Your task to perform on an android device: search for starred emails in the gmail app Image 0: 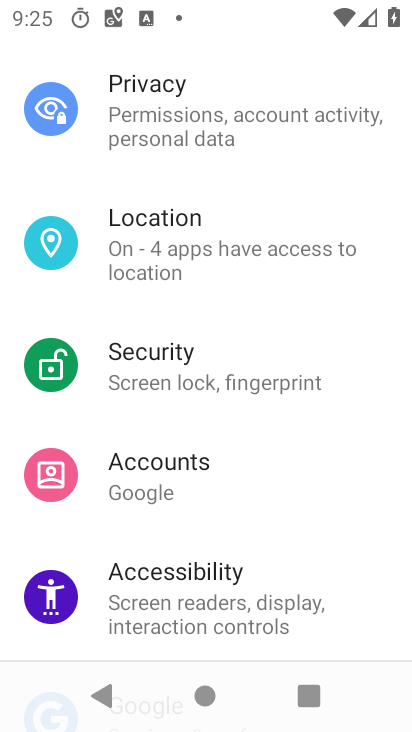
Step 0: press home button
Your task to perform on an android device: search for starred emails in the gmail app Image 1: 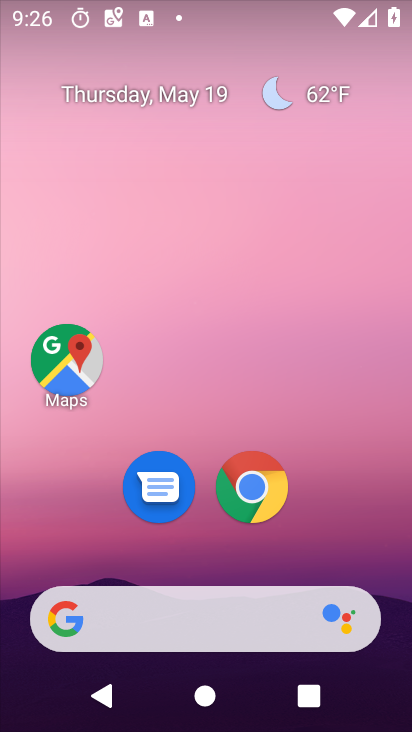
Step 1: drag from (313, 561) to (285, 102)
Your task to perform on an android device: search for starred emails in the gmail app Image 2: 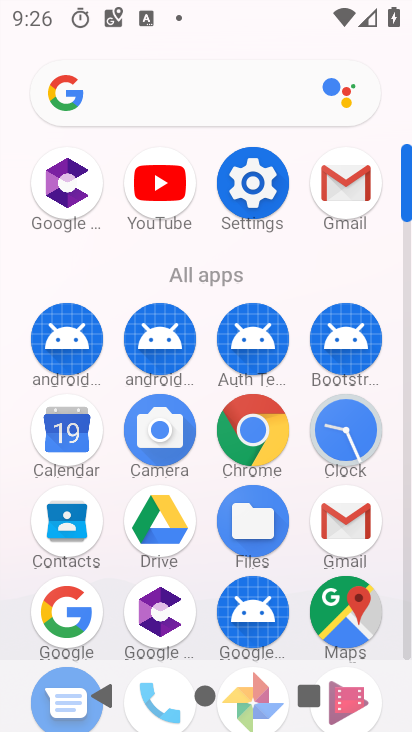
Step 2: click (338, 173)
Your task to perform on an android device: search for starred emails in the gmail app Image 3: 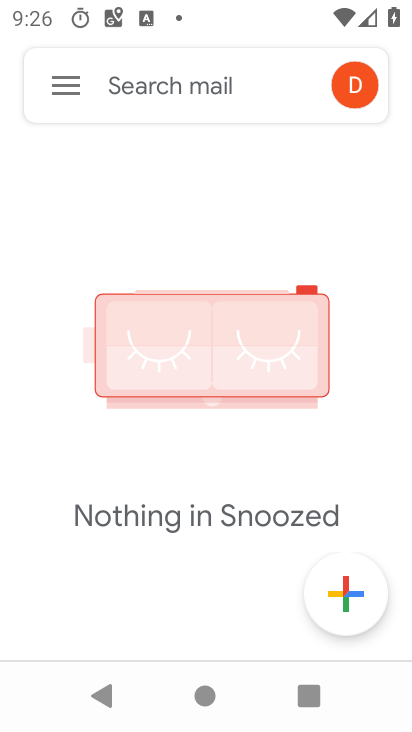
Step 3: click (63, 92)
Your task to perform on an android device: search for starred emails in the gmail app Image 4: 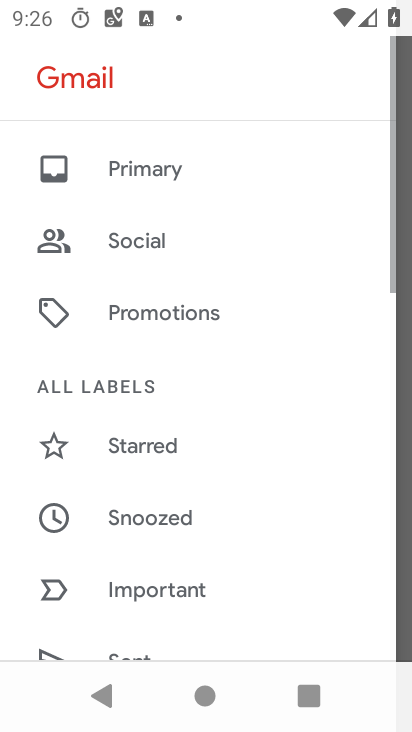
Step 4: drag from (259, 231) to (230, 561)
Your task to perform on an android device: search for starred emails in the gmail app Image 5: 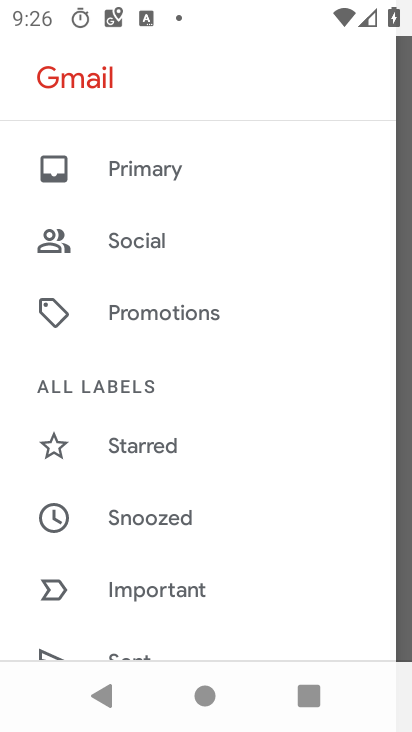
Step 5: click (145, 443)
Your task to perform on an android device: search for starred emails in the gmail app Image 6: 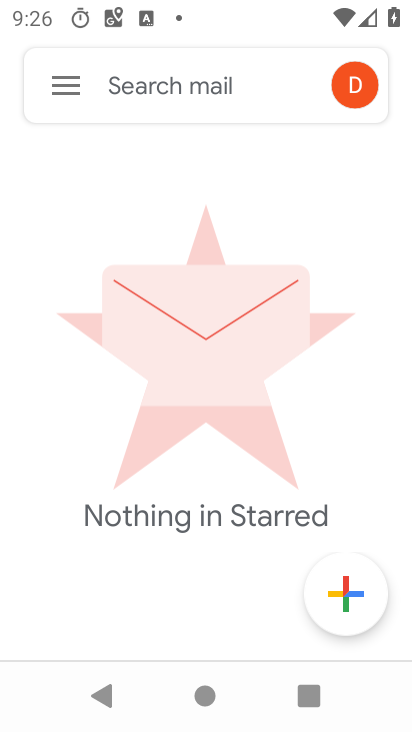
Step 6: task complete